Your task to perform on an android device: Open Youtube and go to "Your channel" Image 0: 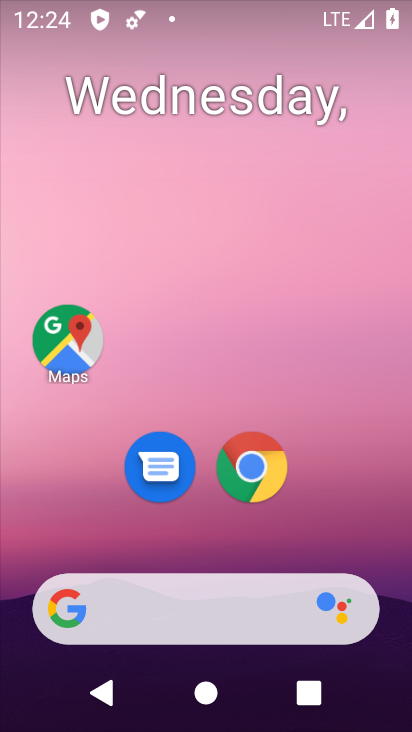
Step 0: drag from (364, 529) to (366, 197)
Your task to perform on an android device: Open Youtube and go to "Your channel" Image 1: 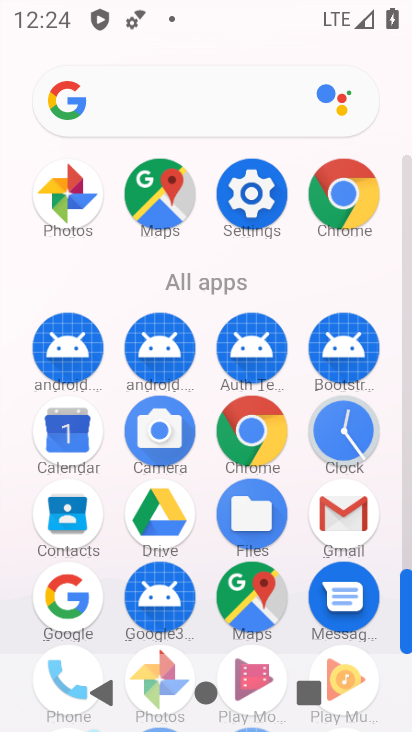
Step 1: drag from (299, 528) to (300, 271)
Your task to perform on an android device: Open Youtube and go to "Your channel" Image 2: 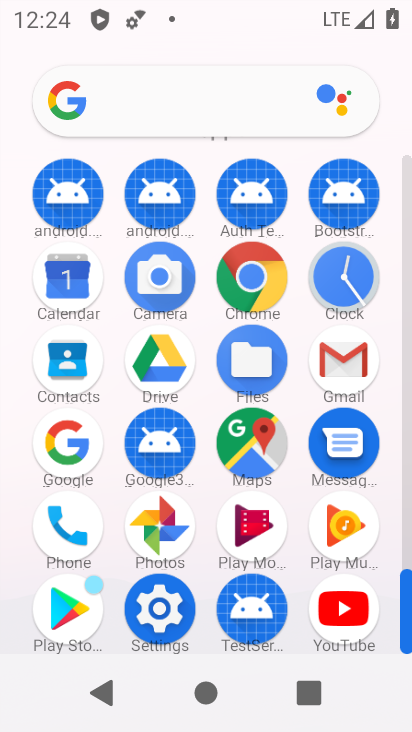
Step 2: click (356, 607)
Your task to perform on an android device: Open Youtube and go to "Your channel" Image 3: 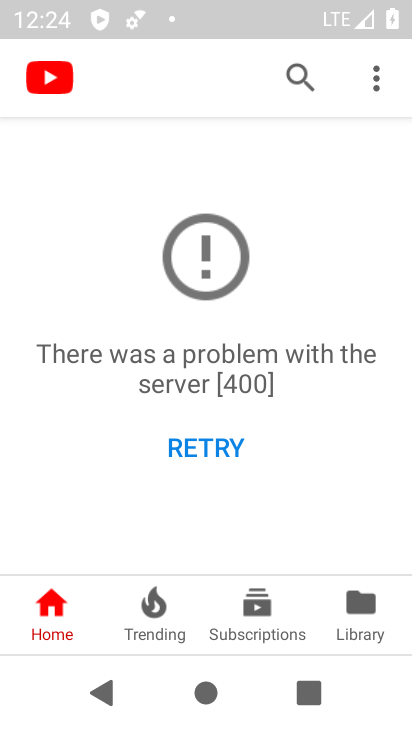
Step 3: click (361, 617)
Your task to perform on an android device: Open Youtube and go to "Your channel" Image 4: 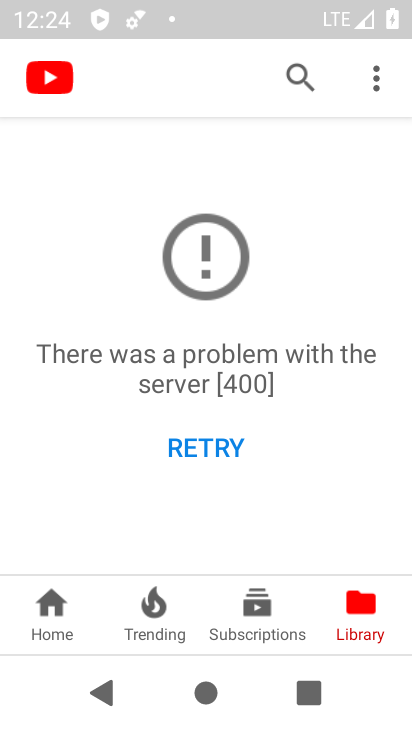
Step 4: click (376, 85)
Your task to perform on an android device: Open Youtube and go to "Your channel" Image 5: 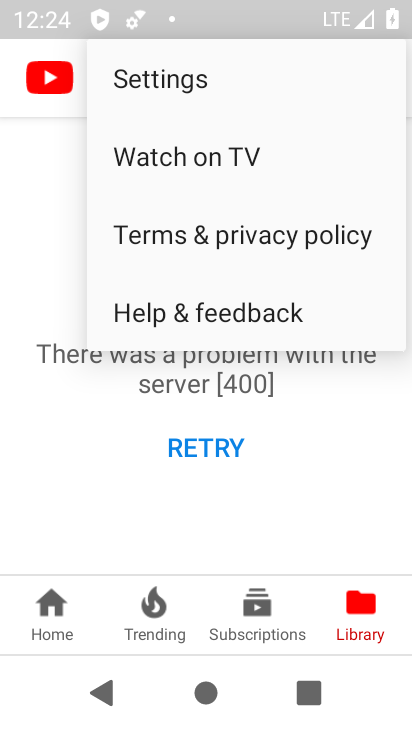
Step 5: click (186, 85)
Your task to perform on an android device: Open Youtube and go to "Your channel" Image 6: 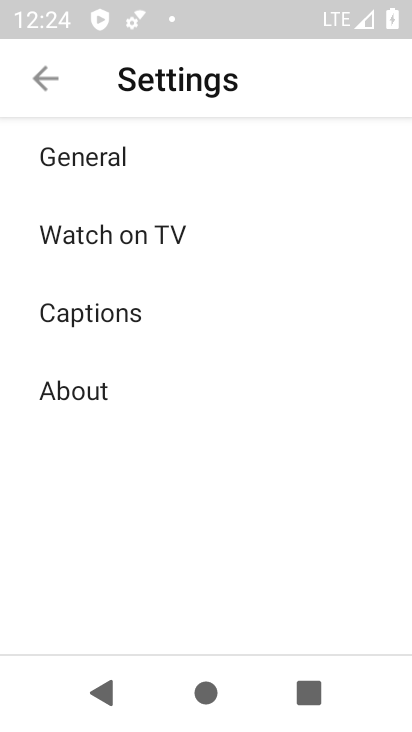
Step 6: task complete